Your task to perform on an android device: find which apps use the phone's location Image 0: 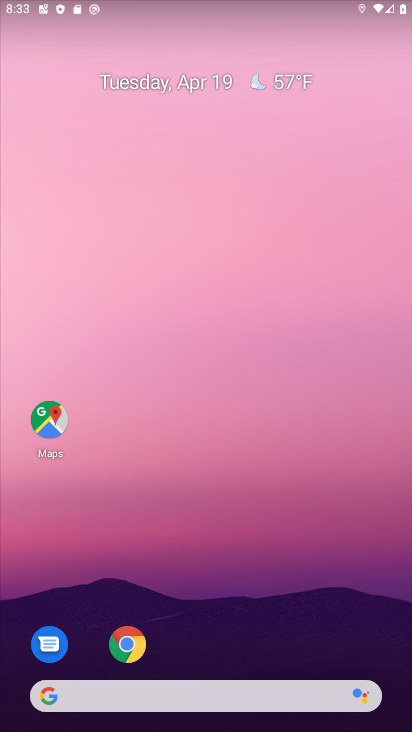
Step 0: drag from (206, 614) to (268, 113)
Your task to perform on an android device: find which apps use the phone's location Image 1: 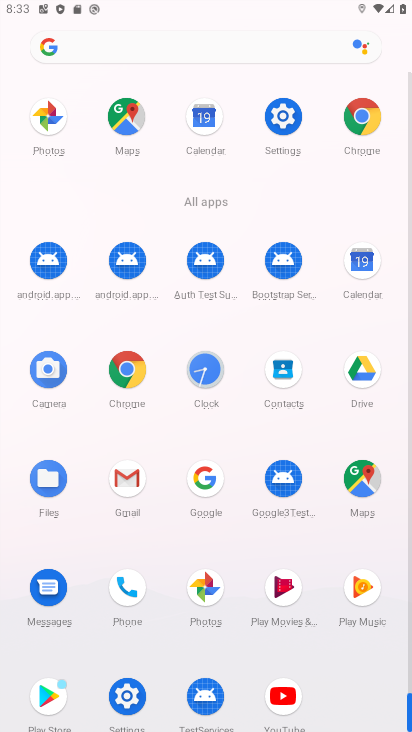
Step 1: click (140, 696)
Your task to perform on an android device: find which apps use the phone's location Image 2: 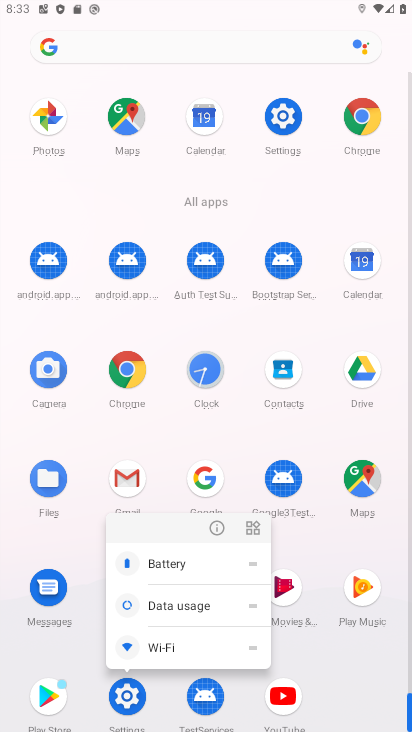
Step 2: click (120, 688)
Your task to perform on an android device: find which apps use the phone's location Image 3: 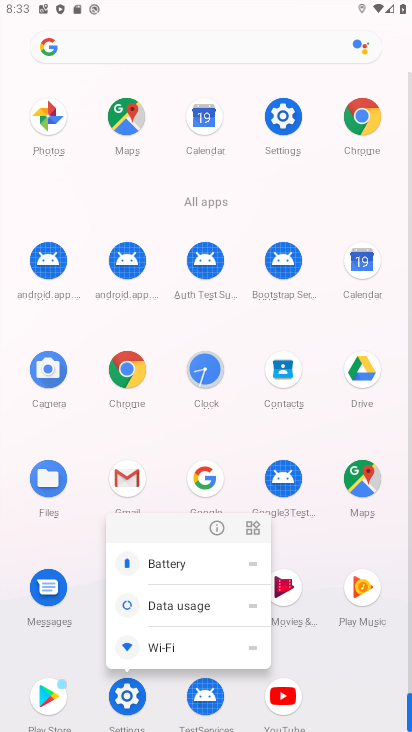
Step 3: click (134, 709)
Your task to perform on an android device: find which apps use the phone's location Image 4: 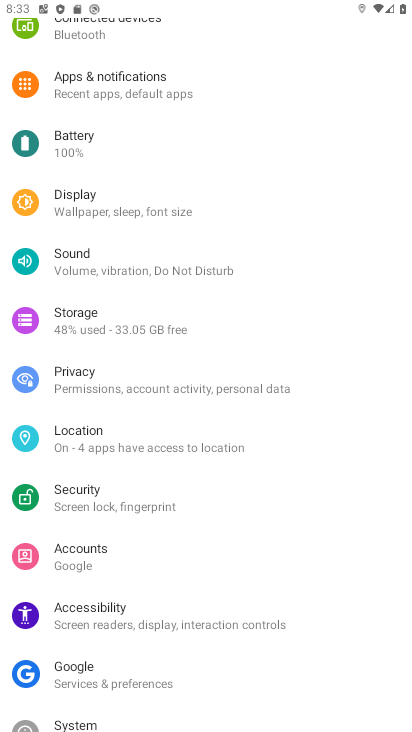
Step 4: click (129, 436)
Your task to perform on an android device: find which apps use the phone's location Image 5: 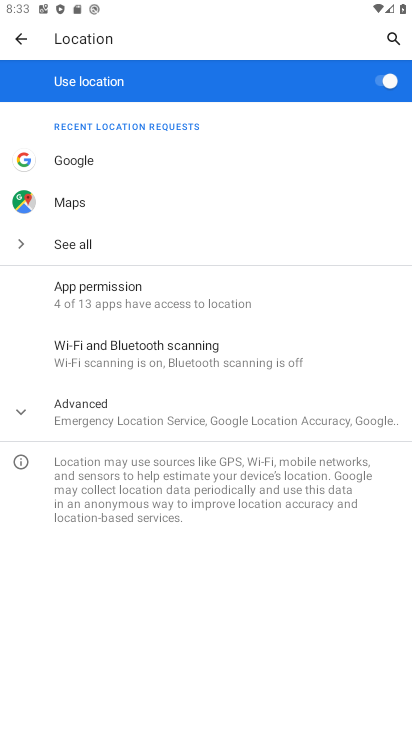
Step 5: click (115, 302)
Your task to perform on an android device: find which apps use the phone's location Image 6: 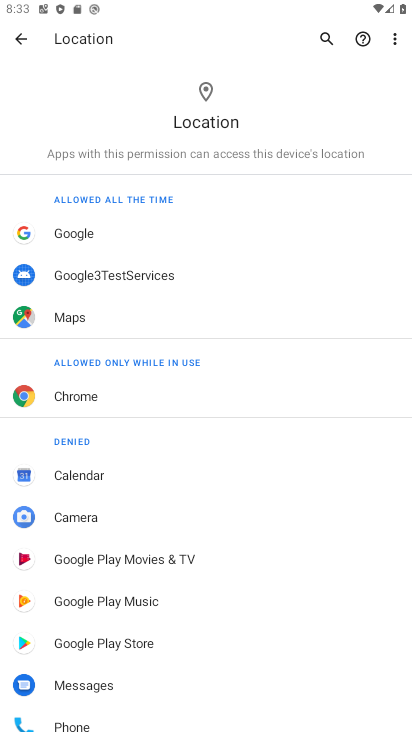
Step 6: task complete